Your task to perform on an android device: Add "logitech g910" to the cart on costco Image 0: 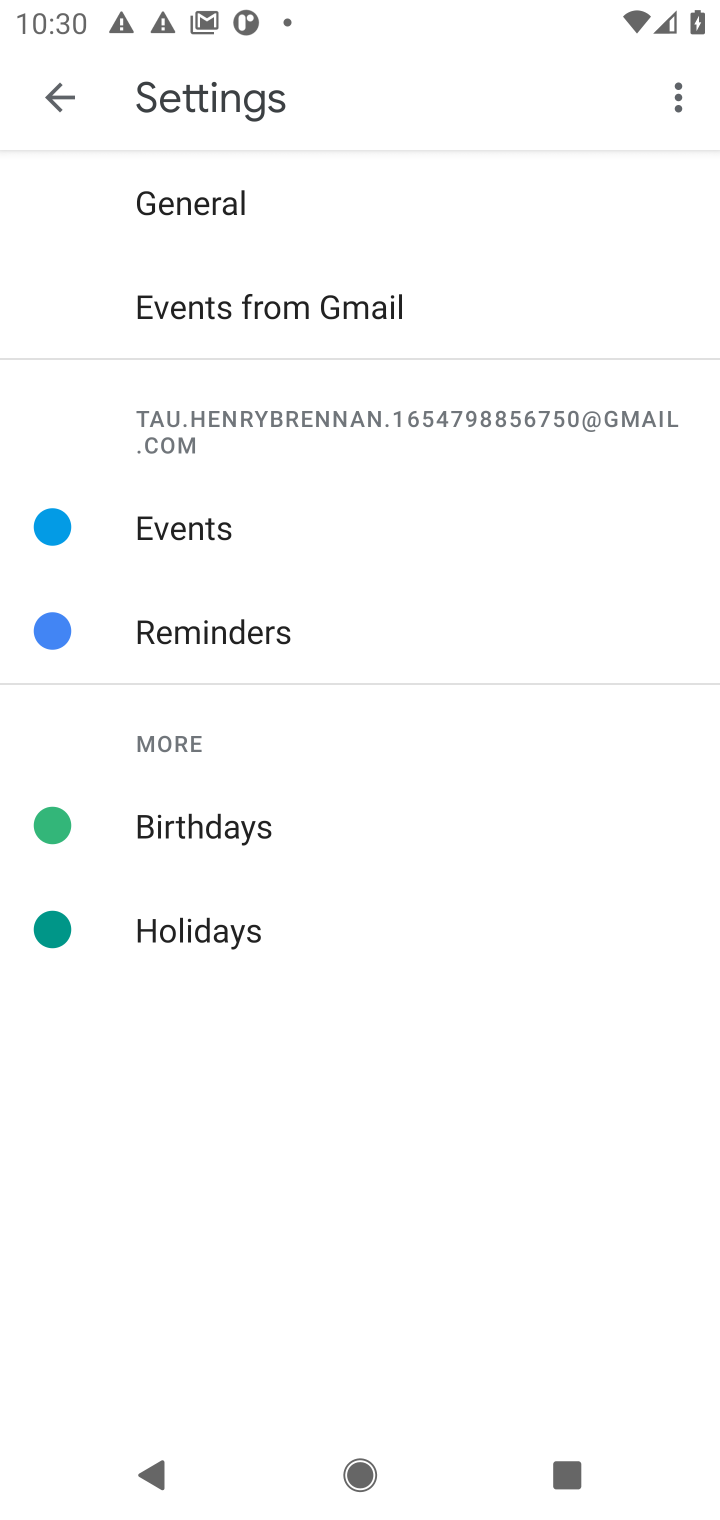
Step 0: press home button
Your task to perform on an android device: Add "logitech g910" to the cart on costco Image 1: 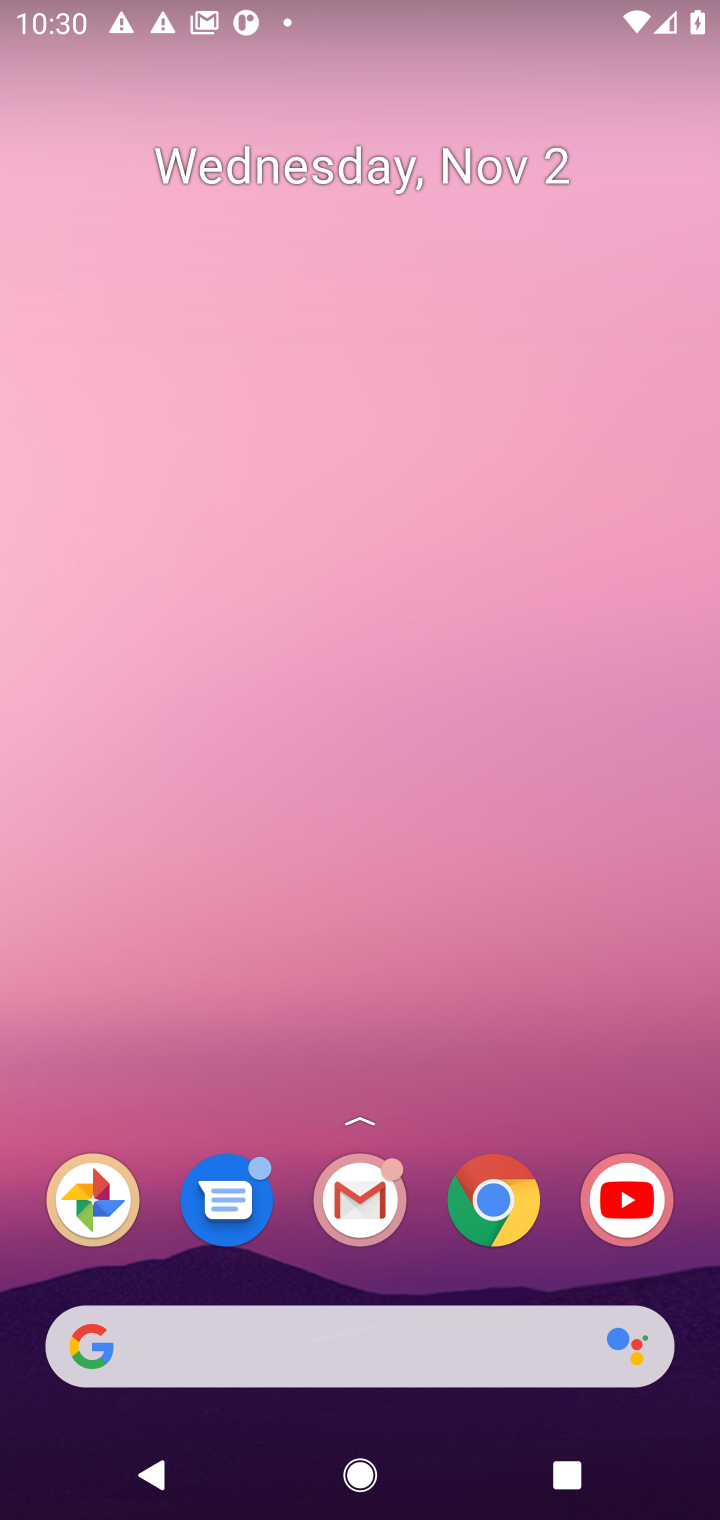
Step 1: click (491, 1209)
Your task to perform on an android device: Add "logitech g910" to the cart on costco Image 2: 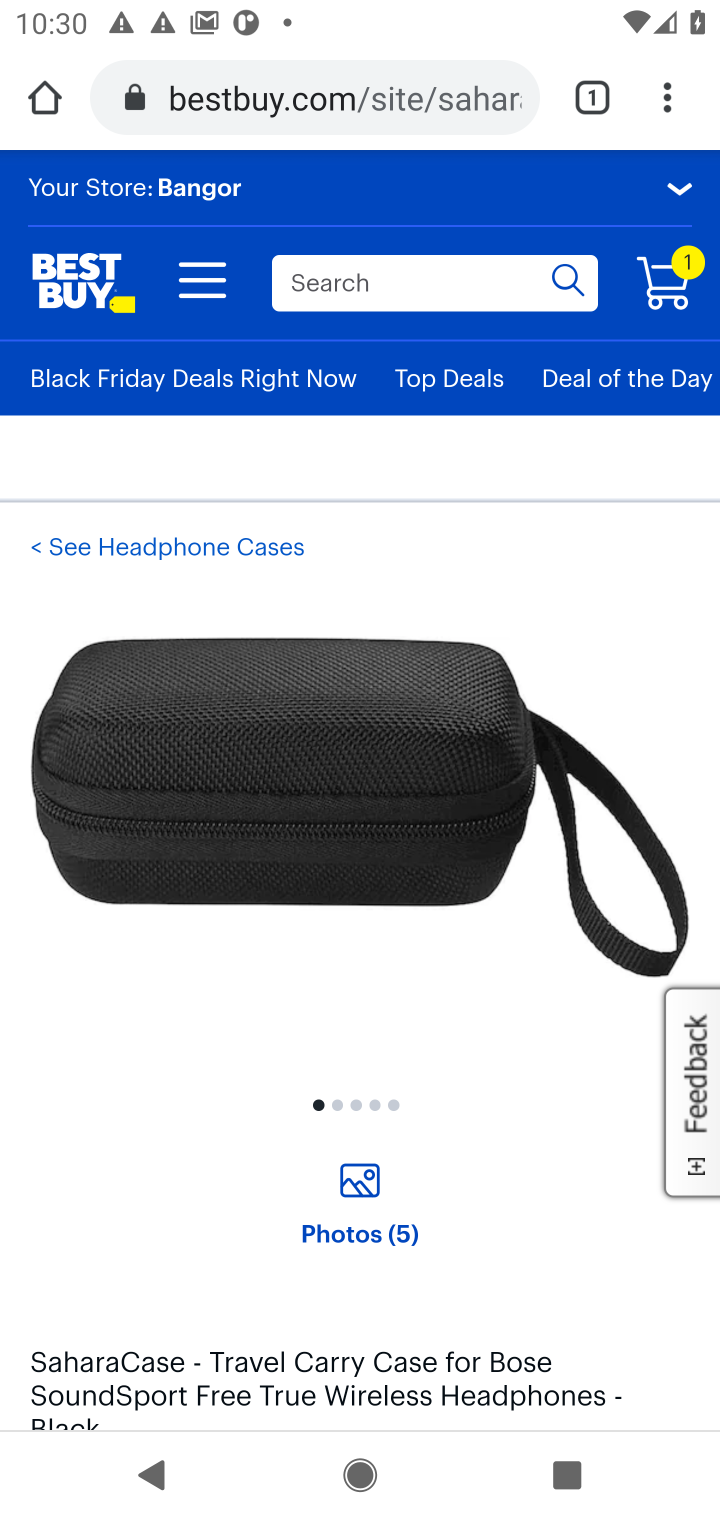
Step 2: click (350, 108)
Your task to perform on an android device: Add "logitech g910" to the cart on costco Image 3: 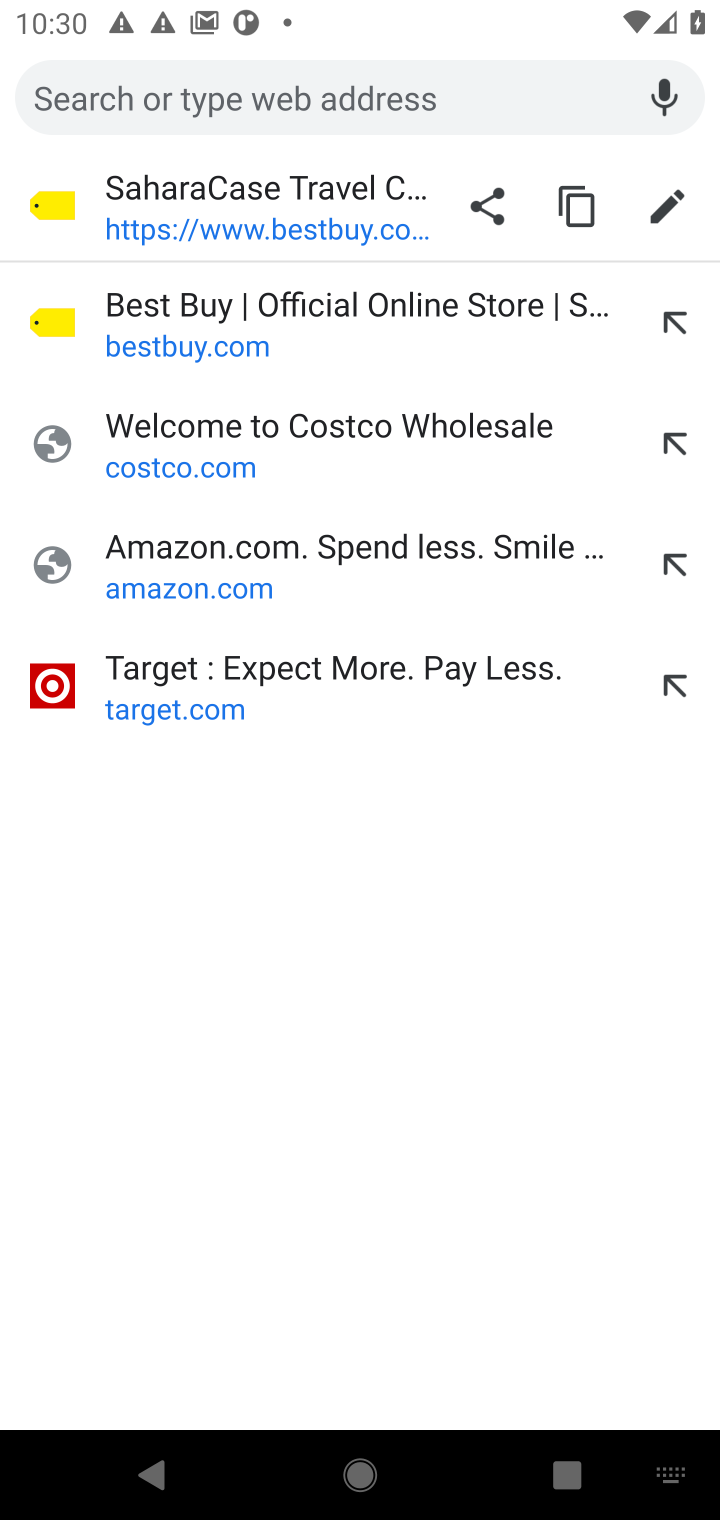
Step 3: type "costco"
Your task to perform on an android device: Add "logitech g910" to the cart on costco Image 4: 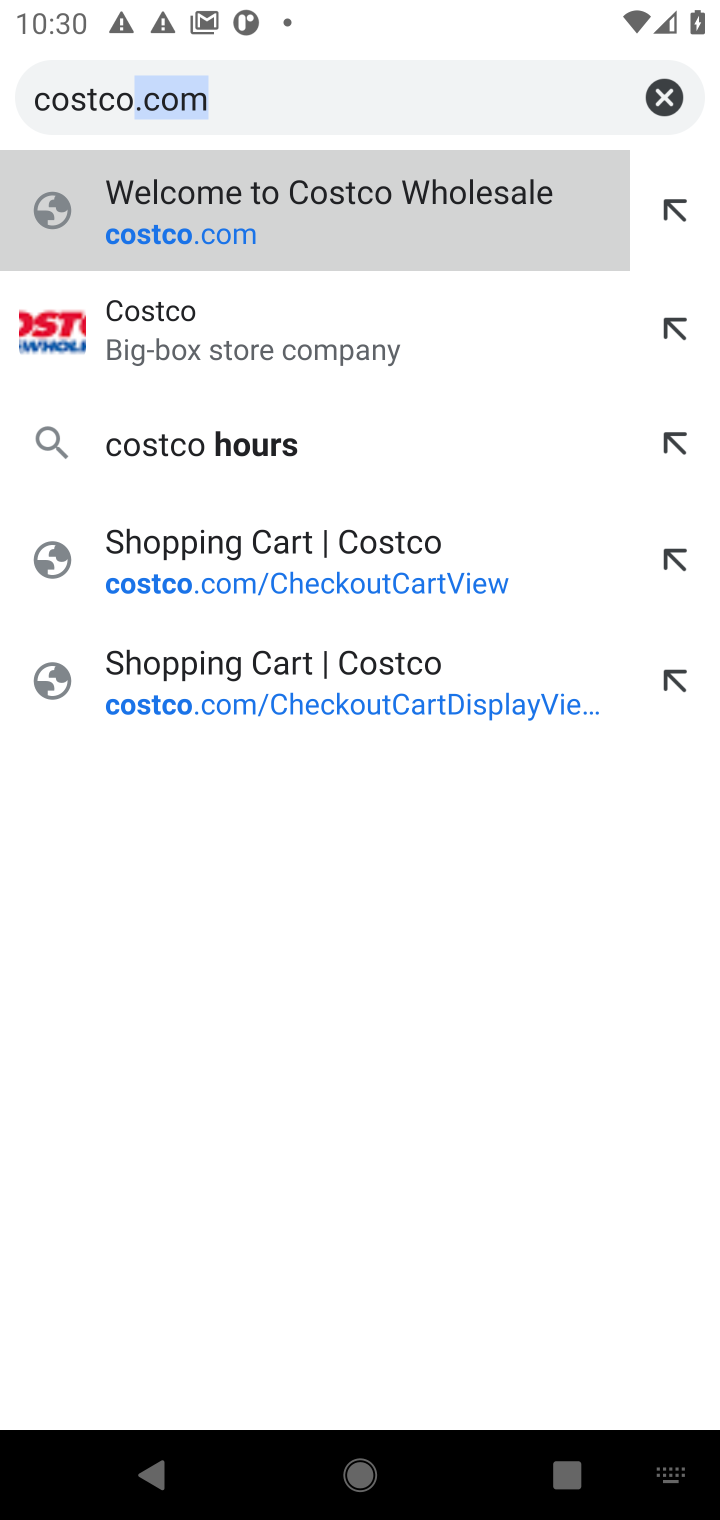
Step 4: press enter
Your task to perform on an android device: Add "logitech g910" to the cart on costco Image 5: 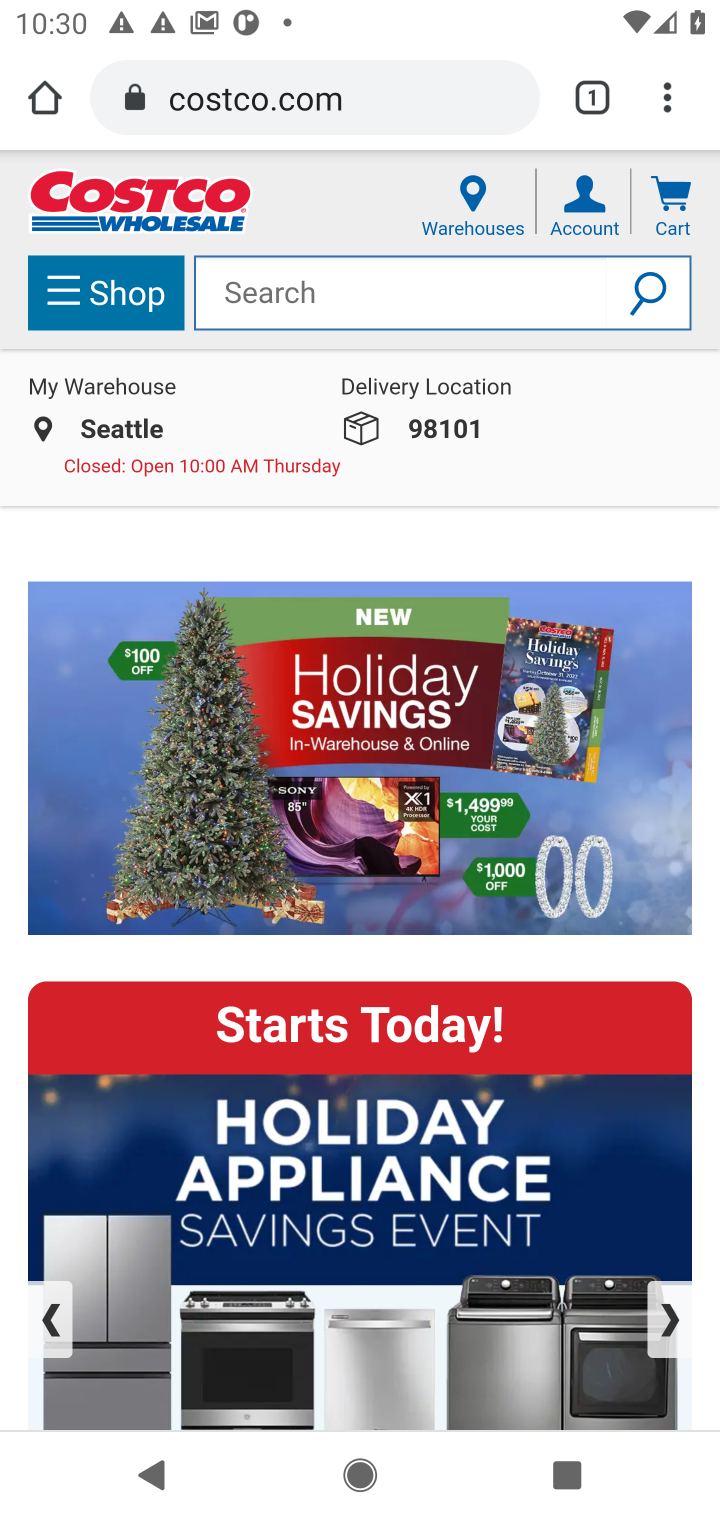
Step 5: click (420, 288)
Your task to perform on an android device: Add "logitech g910" to the cart on costco Image 6: 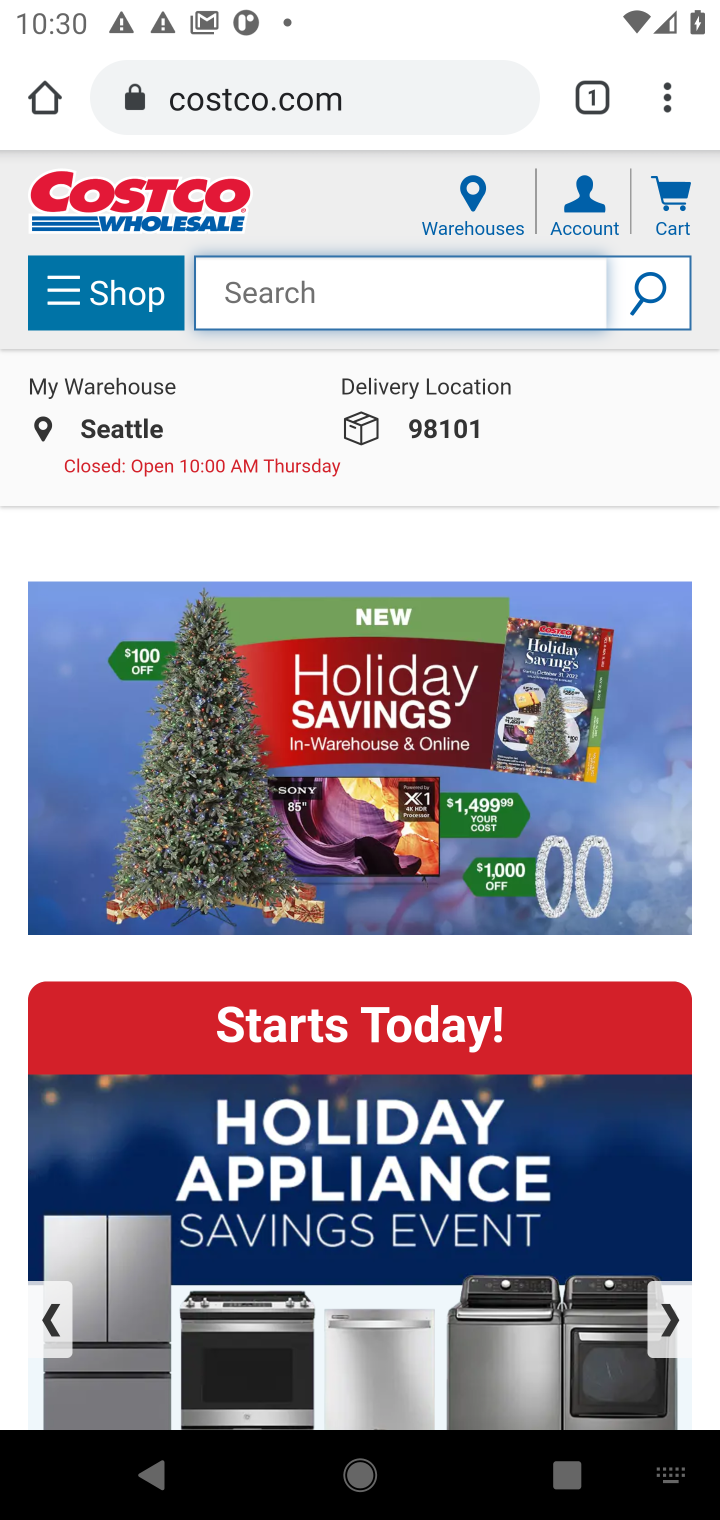
Step 6: type "logitech g910"
Your task to perform on an android device: Add "logitech g910" to the cart on costco Image 7: 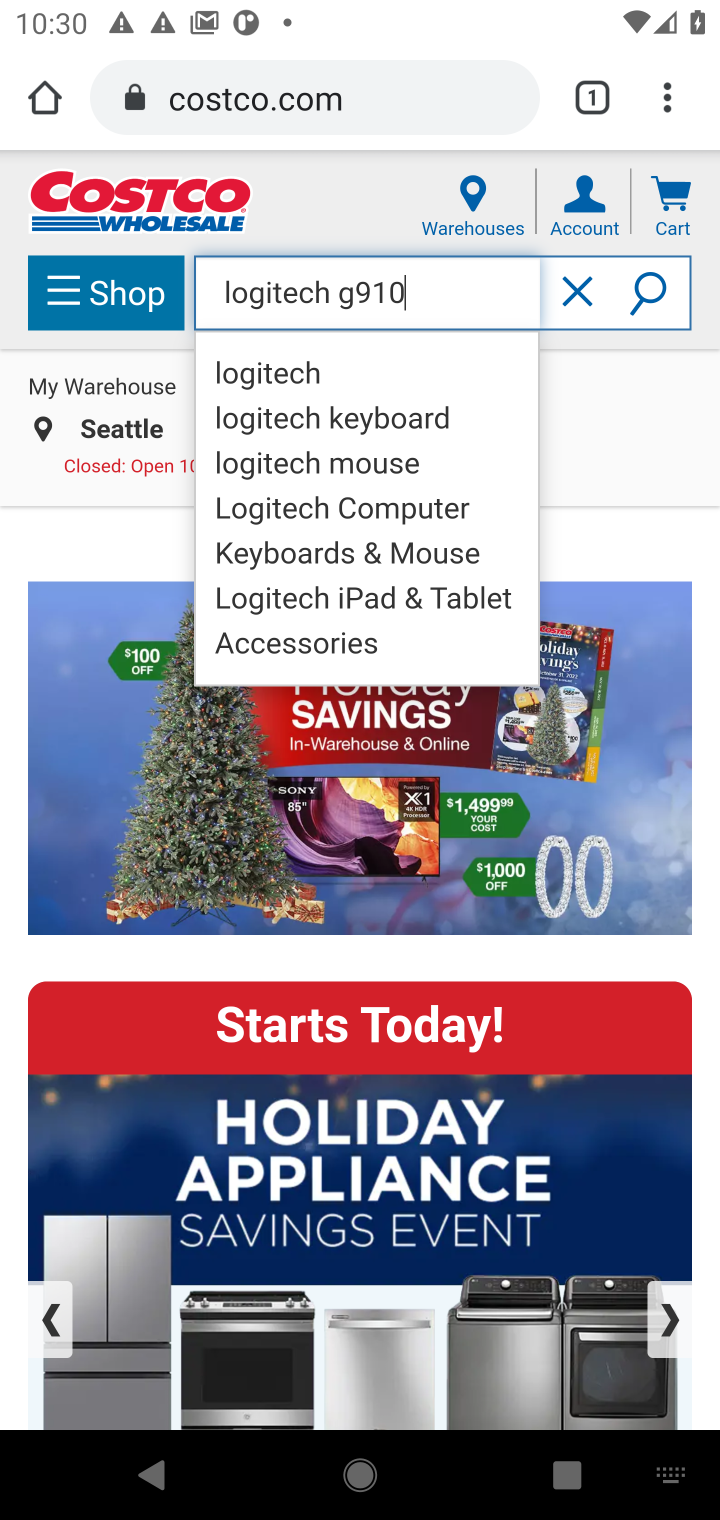
Step 7: press enter
Your task to perform on an android device: Add "logitech g910" to the cart on costco Image 8: 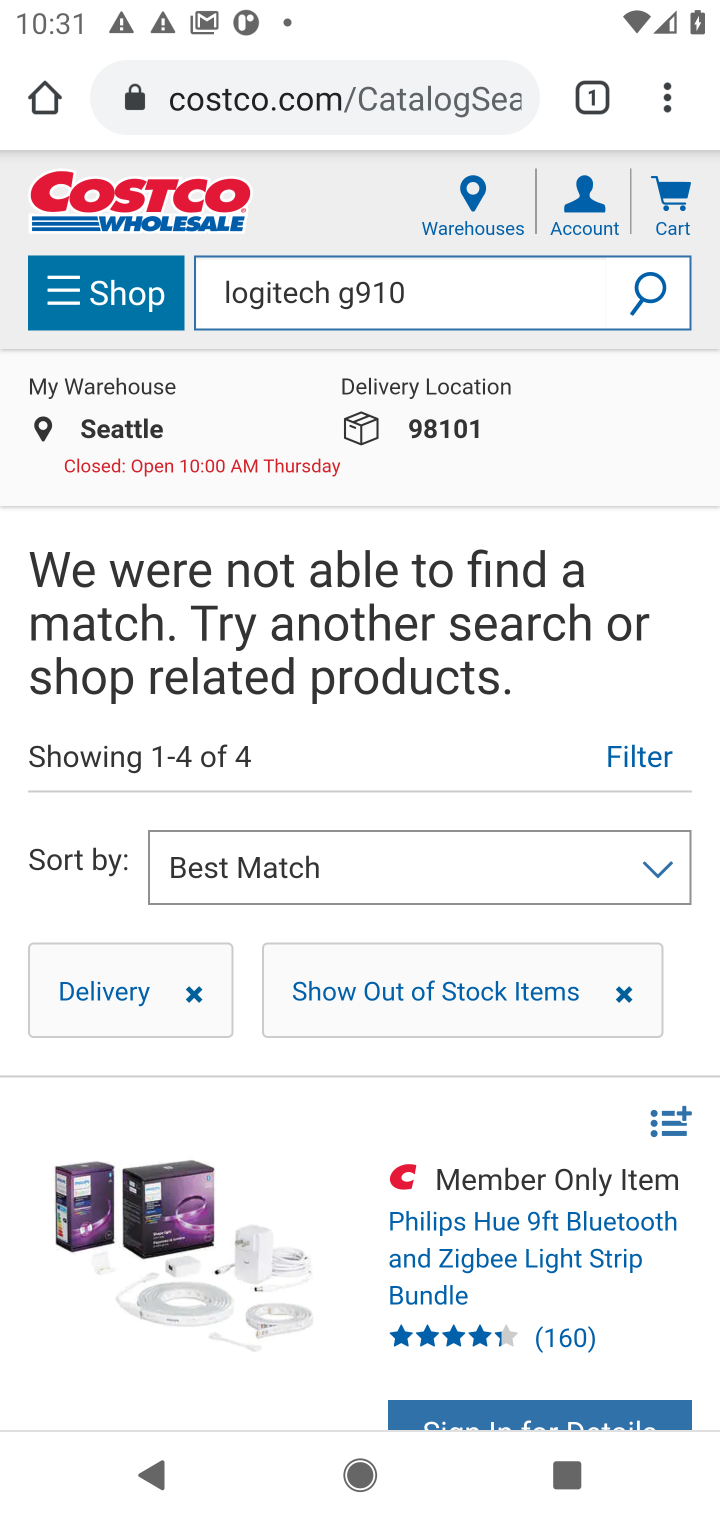
Step 8: task complete